Your task to perform on an android device: Open Amazon Image 0: 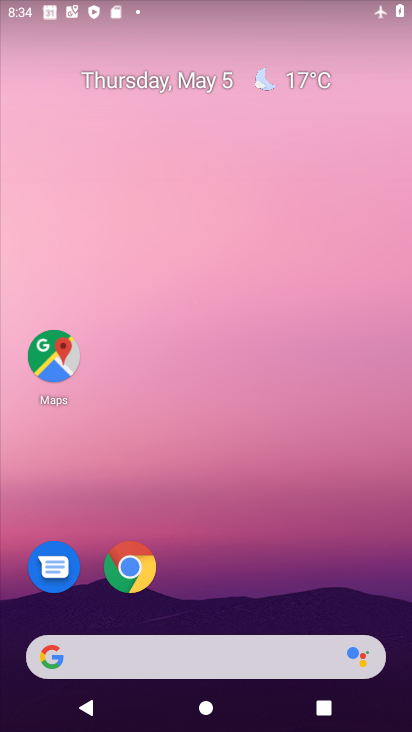
Step 0: drag from (245, 585) to (306, 31)
Your task to perform on an android device: Open Amazon Image 1: 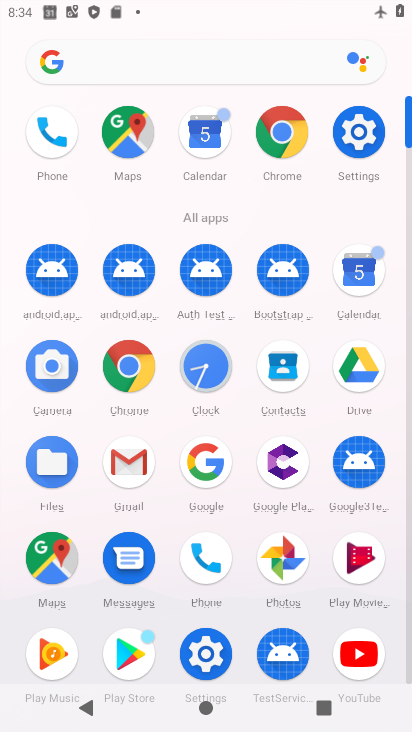
Step 1: click (281, 131)
Your task to perform on an android device: Open Amazon Image 2: 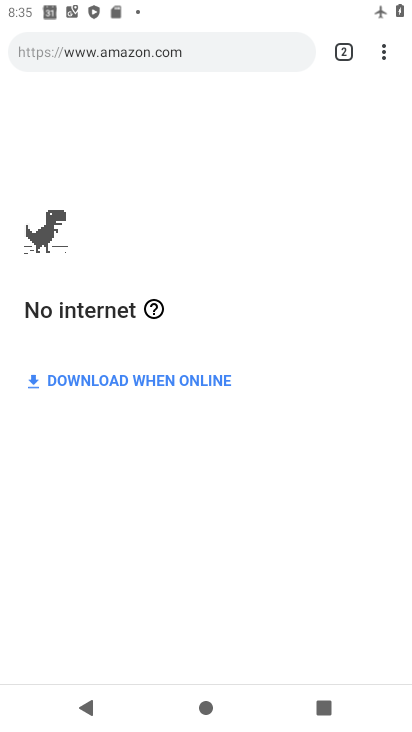
Step 2: task complete